Your task to perform on an android device: uninstall "Messenger Lite" Image 0: 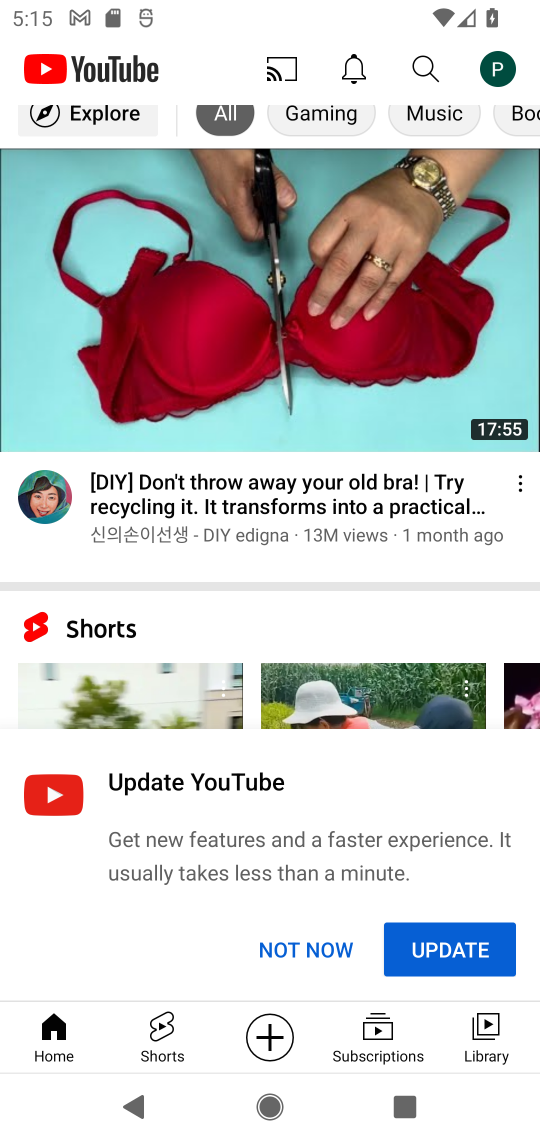
Step 0: press home button
Your task to perform on an android device: uninstall "Messenger Lite" Image 1: 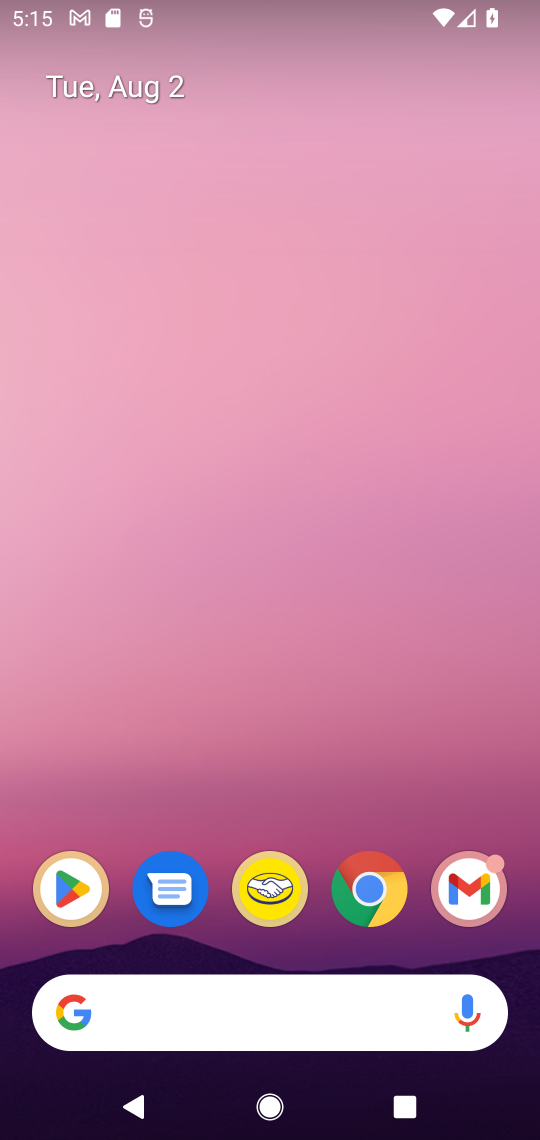
Step 1: drag from (395, 797) to (363, 124)
Your task to perform on an android device: uninstall "Messenger Lite" Image 2: 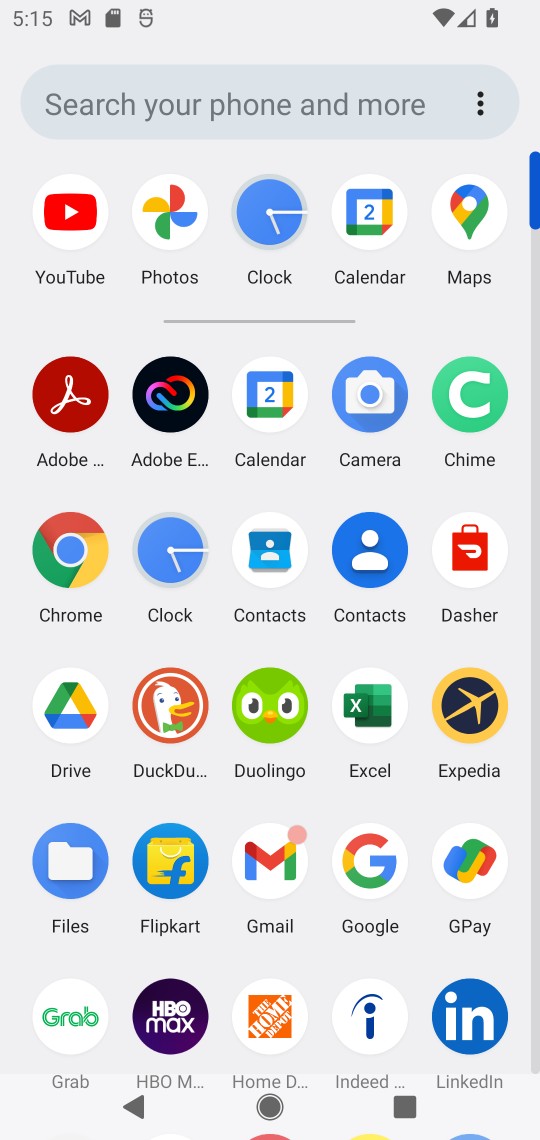
Step 2: drag from (497, 958) to (535, 416)
Your task to perform on an android device: uninstall "Messenger Lite" Image 3: 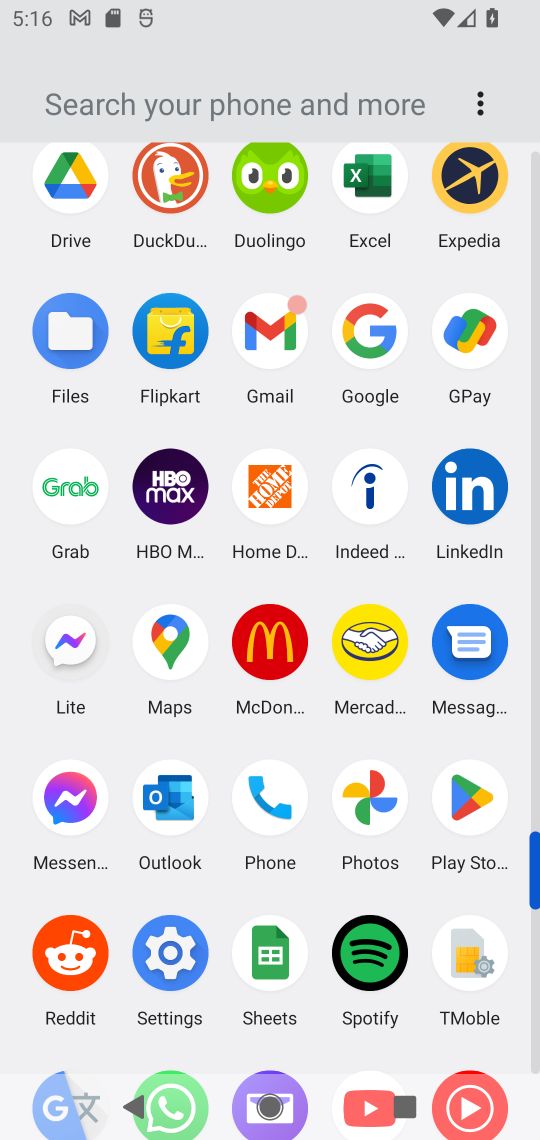
Step 3: click (467, 811)
Your task to perform on an android device: uninstall "Messenger Lite" Image 4: 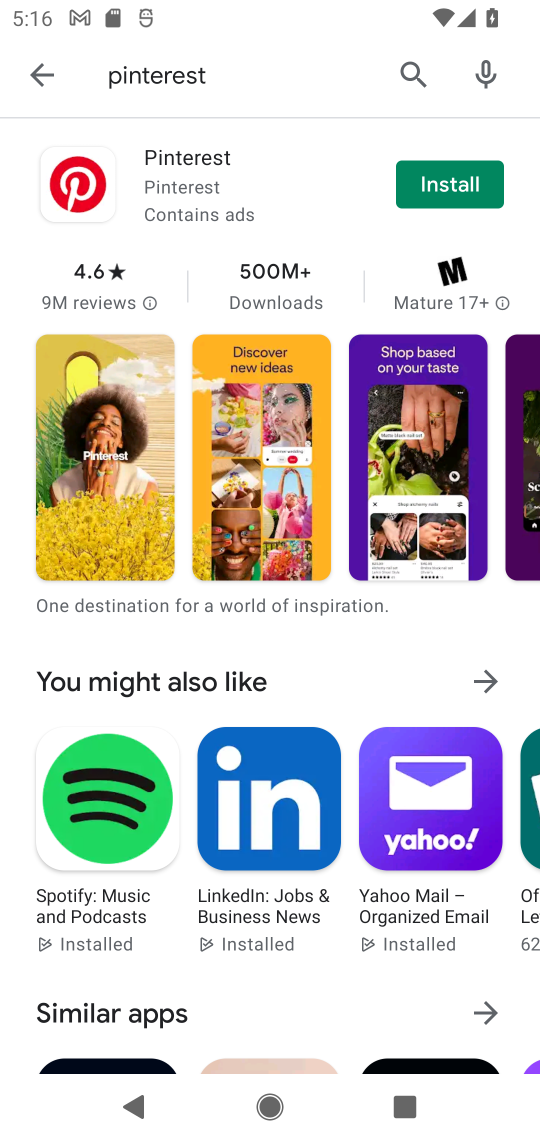
Step 4: task complete